Your task to perform on an android device: turn off javascript in the chrome app Image 0: 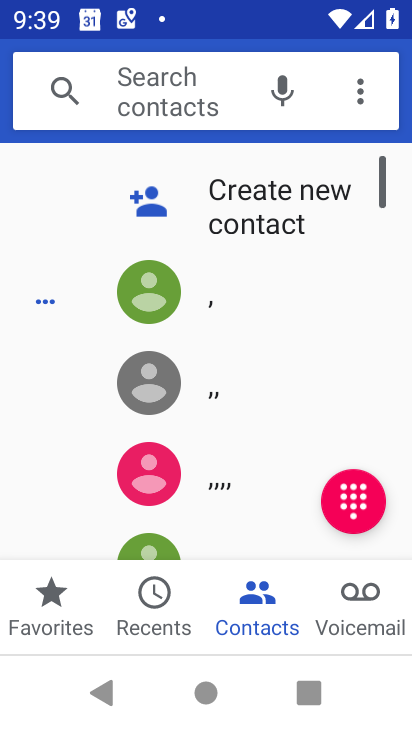
Step 0: press home button
Your task to perform on an android device: turn off javascript in the chrome app Image 1: 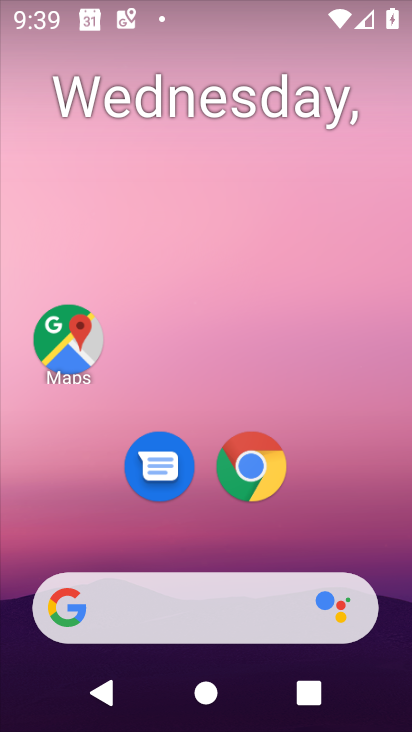
Step 1: drag from (330, 503) to (330, 253)
Your task to perform on an android device: turn off javascript in the chrome app Image 2: 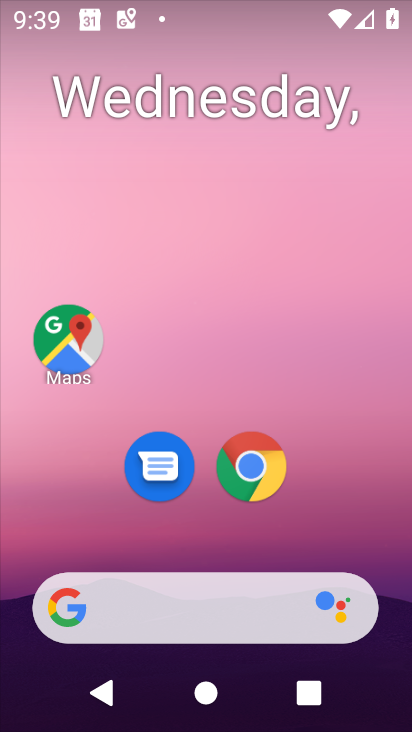
Step 2: drag from (274, 534) to (320, 203)
Your task to perform on an android device: turn off javascript in the chrome app Image 3: 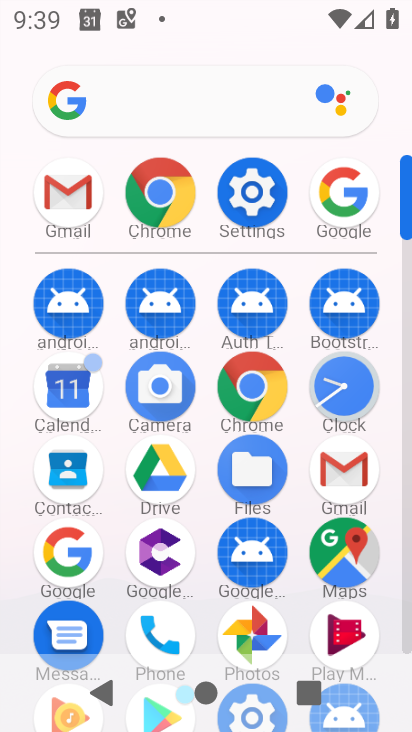
Step 3: click (168, 172)
Your task to perform on an android device: turn off javascript in the chrome app Image 4: 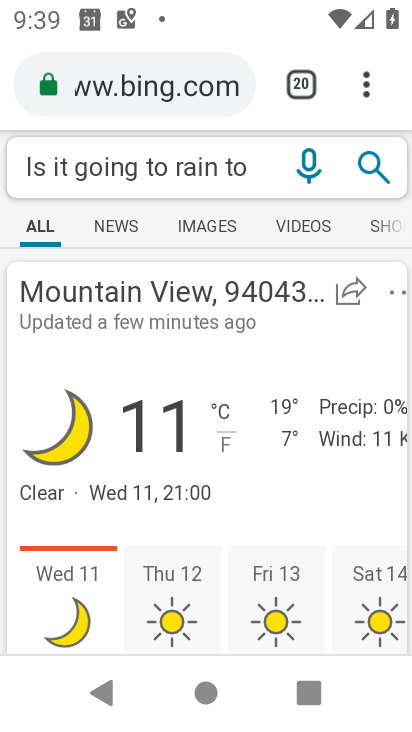
Step 4: click (348, 75)
Your task to perform on an android device: turn off javascript in the chrome app Image 5: 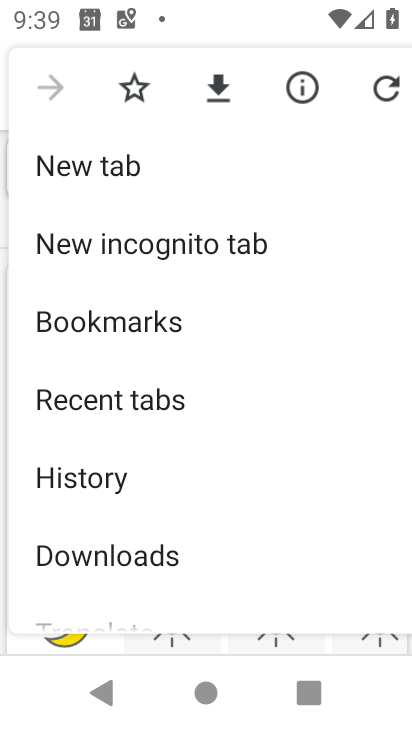
Step 5: drag from (173, 573) to (232, 166)
Your task to perform on an android device: turn off javascript in the chrome app Image 6: 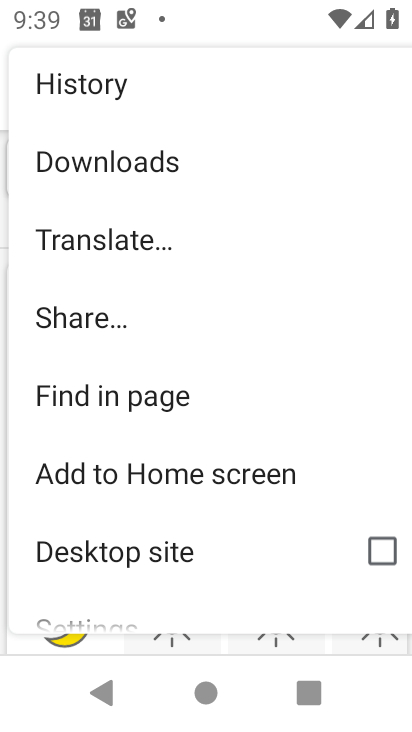
Step 6: drag from (138, 512) to (207, 246)
Your task to perform on an android device: turn off javascript in the chrome app Image 7: 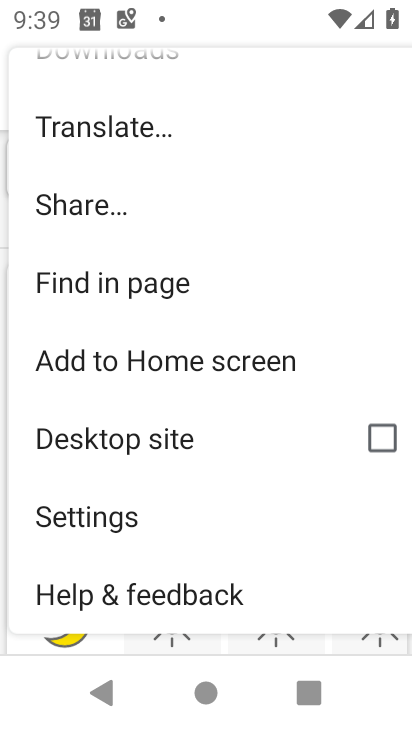
Step 7: click (101, 503)
Your task to perform on an android device: turn off javascript in the chrome app Image 8: 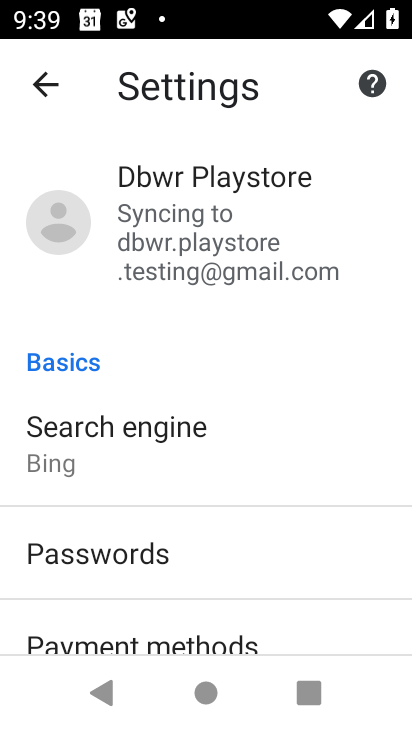
Step 8: drag from (219, 620) to (260, 205)
Your task to perform on an android device: turn off javascript in the chrome app Image 9: 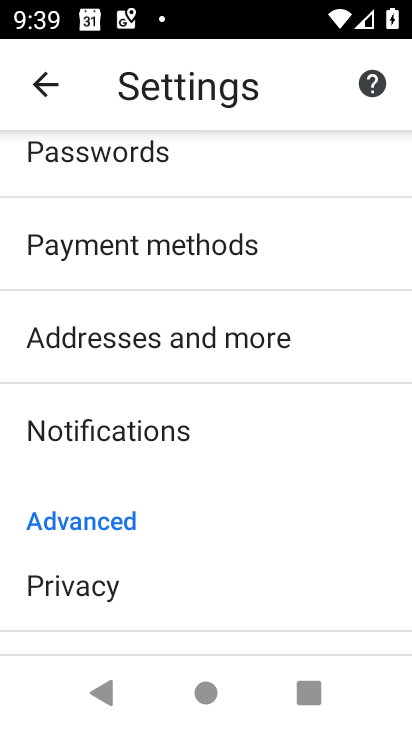
Step 9: drag from (125, 570) to (226, 217)
Your task to perform on an android device: turn off javascript in the chrome app Image 10: 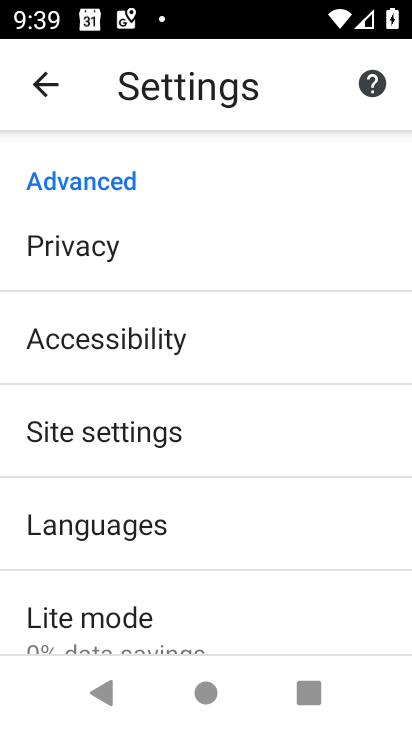
Step 10: click (82, 429)
Your task to perform on an android device: turn off javascript in the chrome app Image 11: 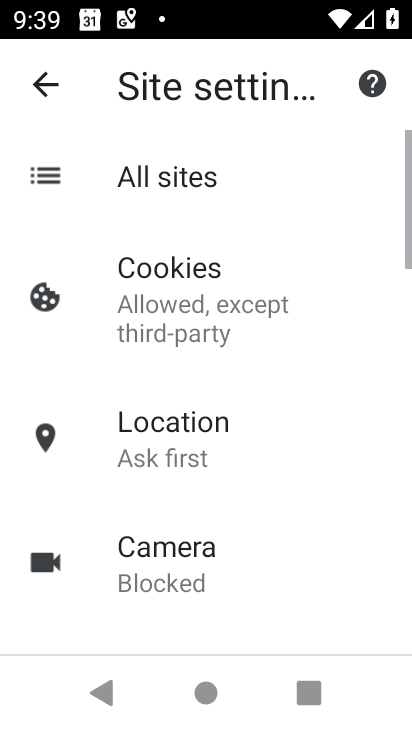
Step 11: drag from (228, 617) to (315, 224)
Your task to perform on an android device: turn off javascript in the chrome app Image 12: 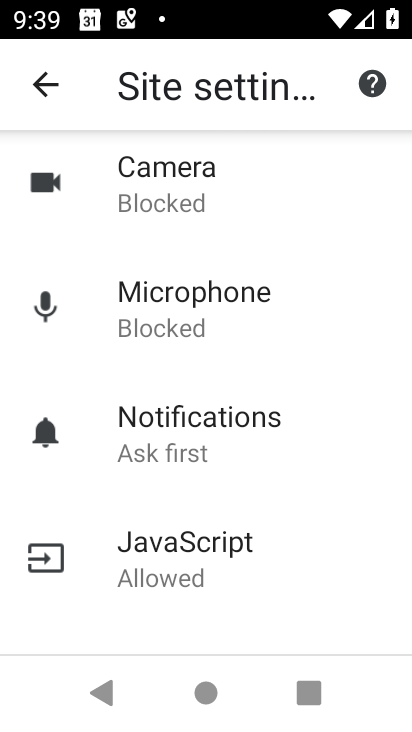
Step 12: click (191, 562)
Your task to perform on an android device: turn off javascript in the chrome app Image 13: 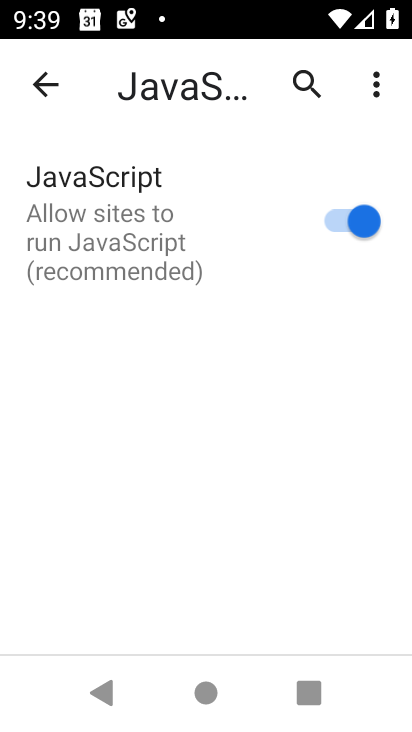
Step 13: click (344, 225)
Your task to perform on an android device: turn off javascript in the chrome app Image 14: 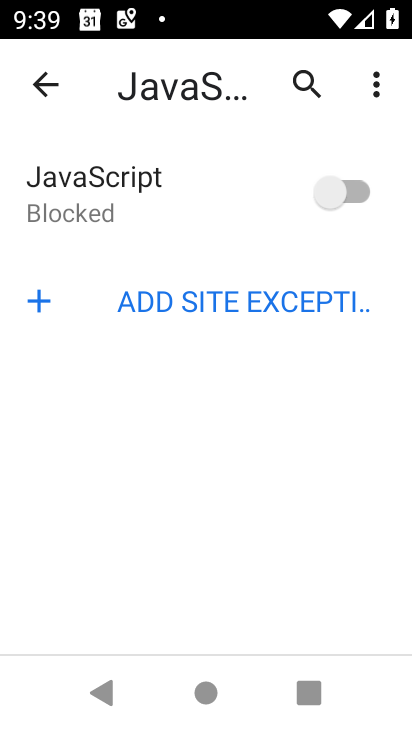
Step 14: task complete